Your task to perform on an android device: Find coffee shops on Maps Image 0: 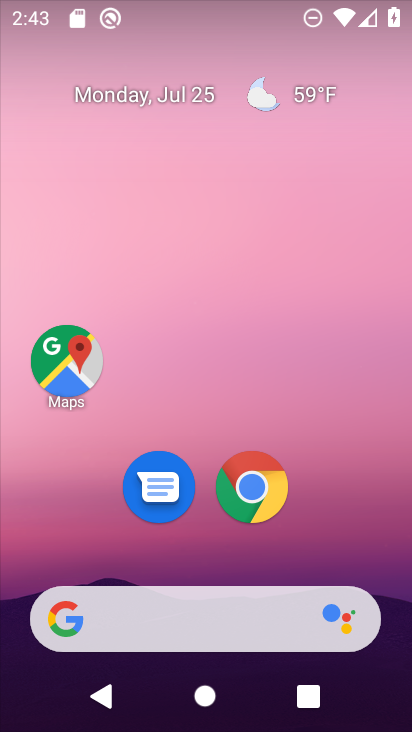
Step 0: click (49, 381)
Your task to perform on an android device: Find coffee shops on Maps Image 1: 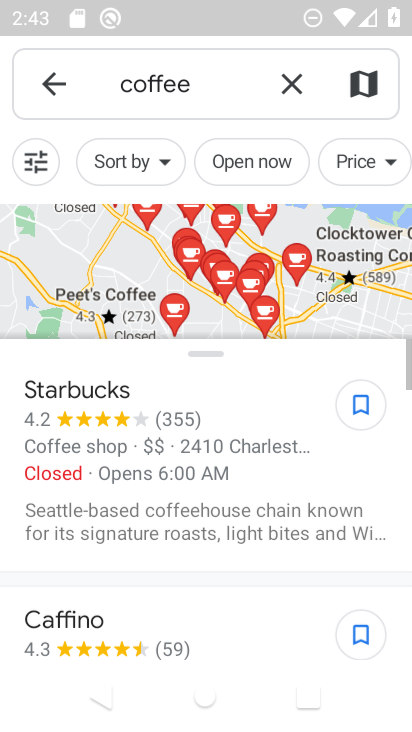
Step 1: click (259, 76)
Your task to perform on an android device: Find coffee shops on Maps Image 2: 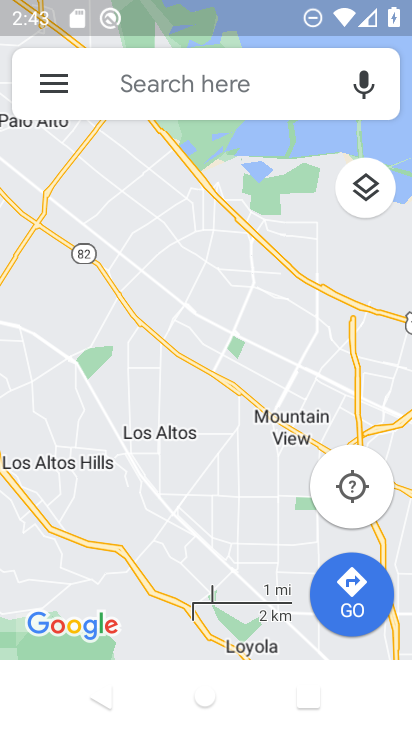
Step 2: click (182, 90)
Your task to perform on an android device: Find coffee shops on Maps Image 3: 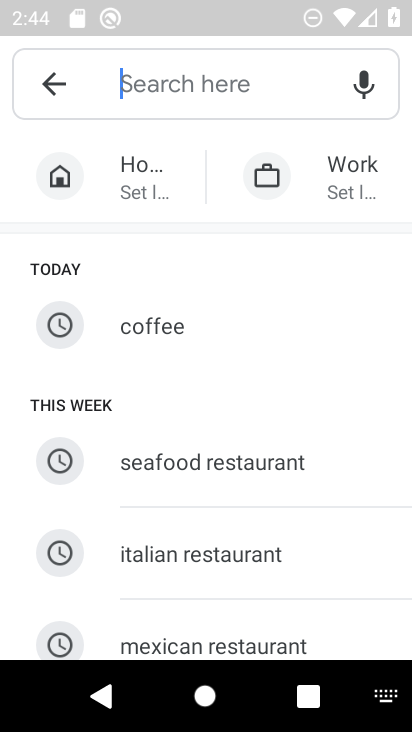
Step 3: type "coffee shops"
Your task to perform on an android device: Find coffee shops on Maps Image 4: 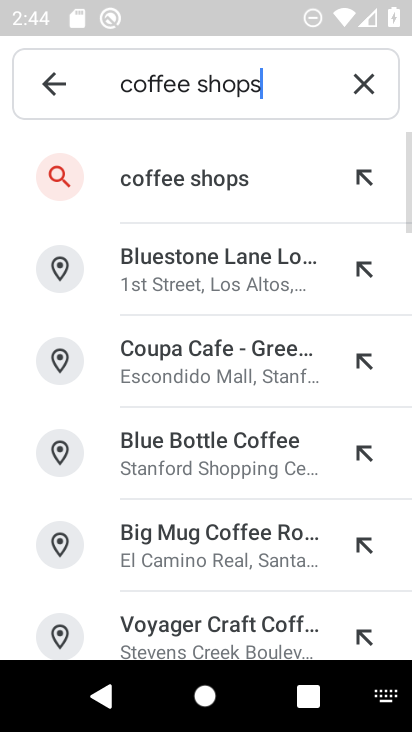
Step 4: click (167, 174)
Your task to perform on an android device: Find coffee shops on Maps Image 5: 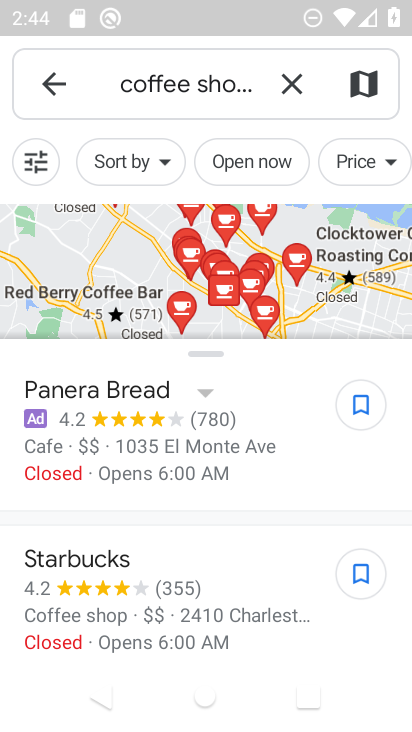
Step 5: task complete